Your task to perform on an android device: Search for hotels in Paris Image 0: 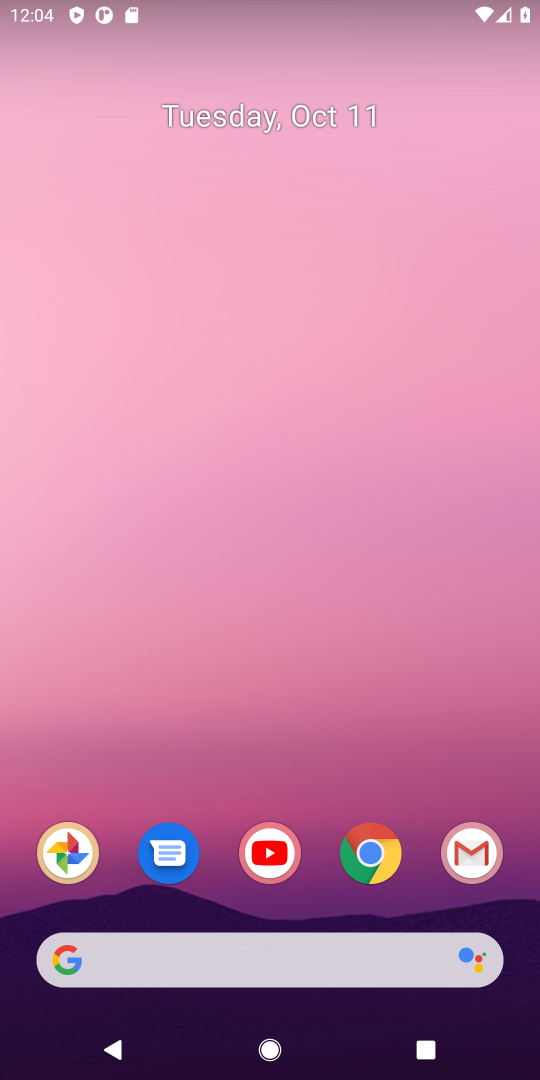
Step 0: drag from (343, 807) to (408, 45)
Your task to perform on an android device: Search for hotels in Paris Image 1: 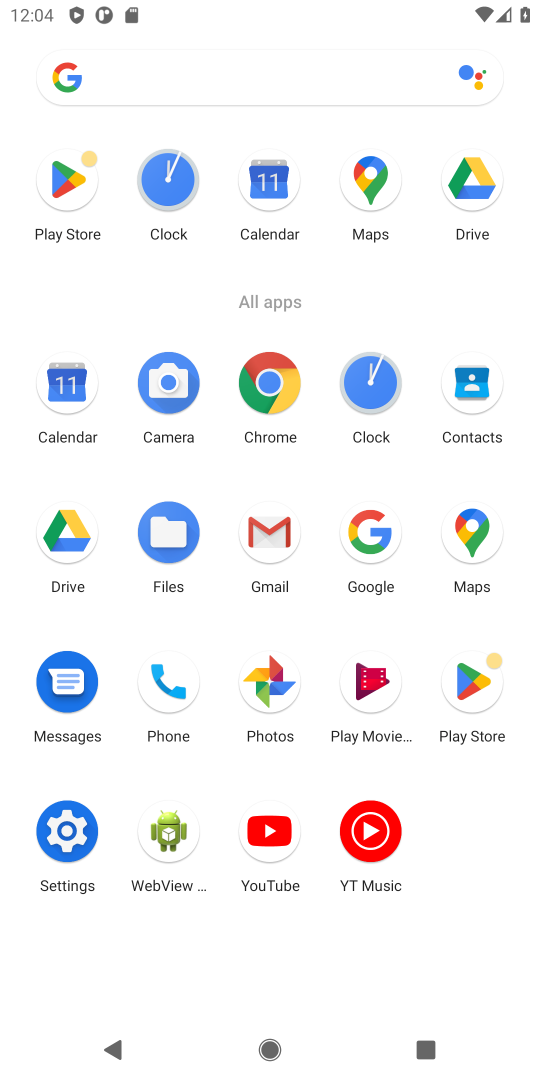
Step 1: click (272, 405)
Your task to perform on an android device: Search for hotels in Paris Image 2: 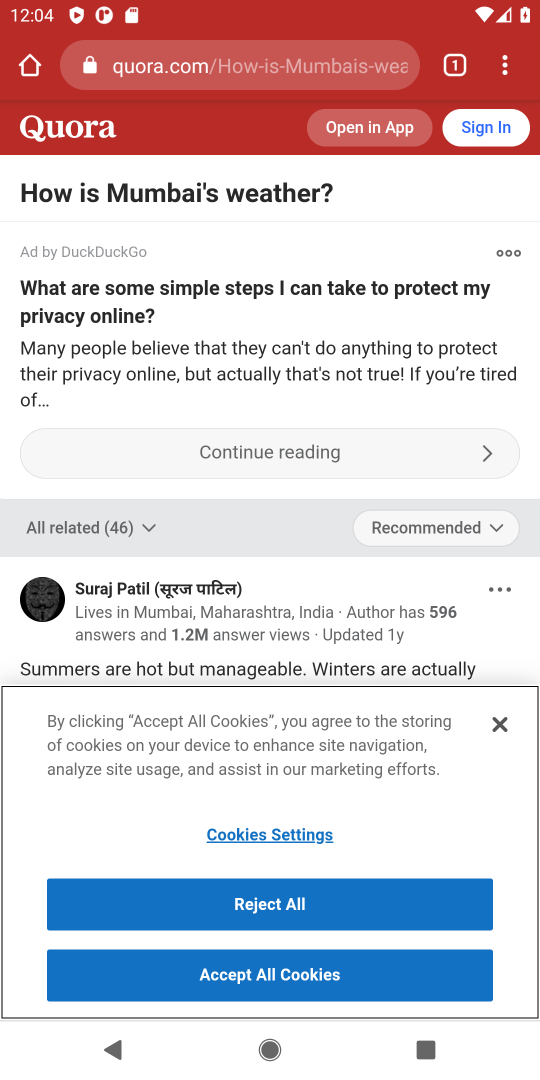
Step 2: click (235, 67)
Your task to perform on an android device: Search for hotels in Paris Image 3: 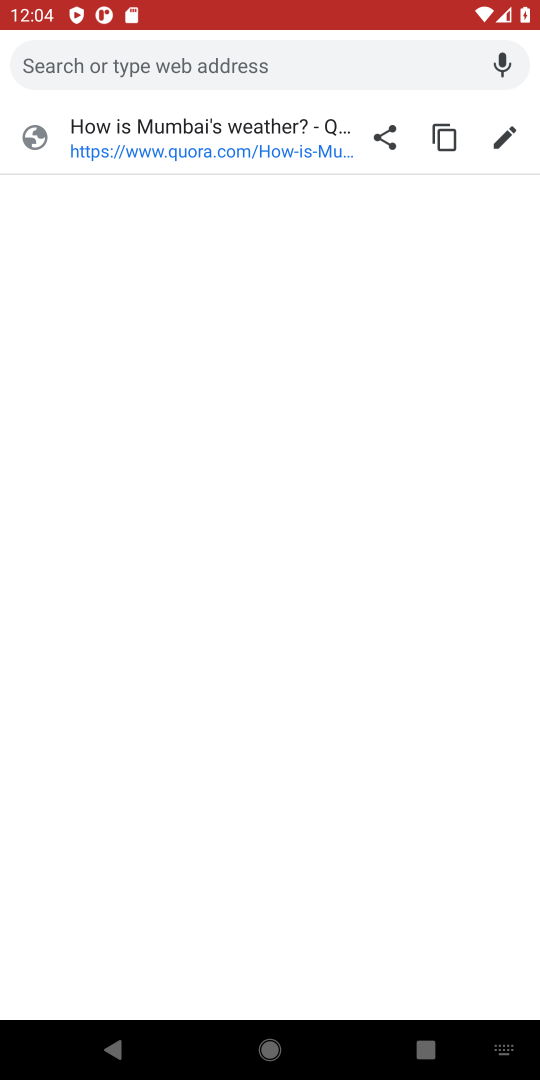
Step 3: type "hotels in Paris"
Your task to perform on an android device: Search for hotels in Paris Image 4: 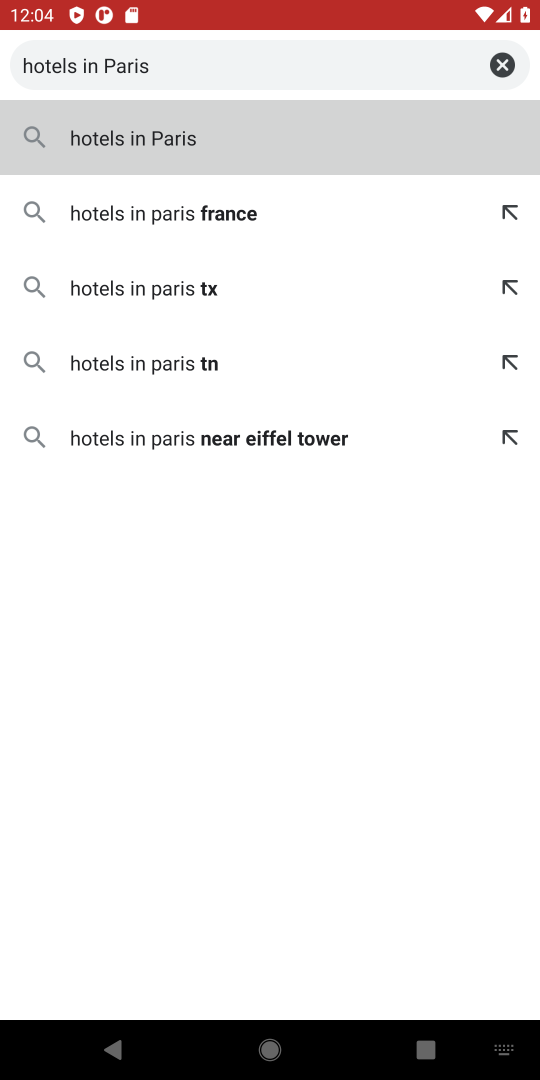
Step 4: type ""
Your task to perform on an android device: Search for hotels in Paris Image 5: 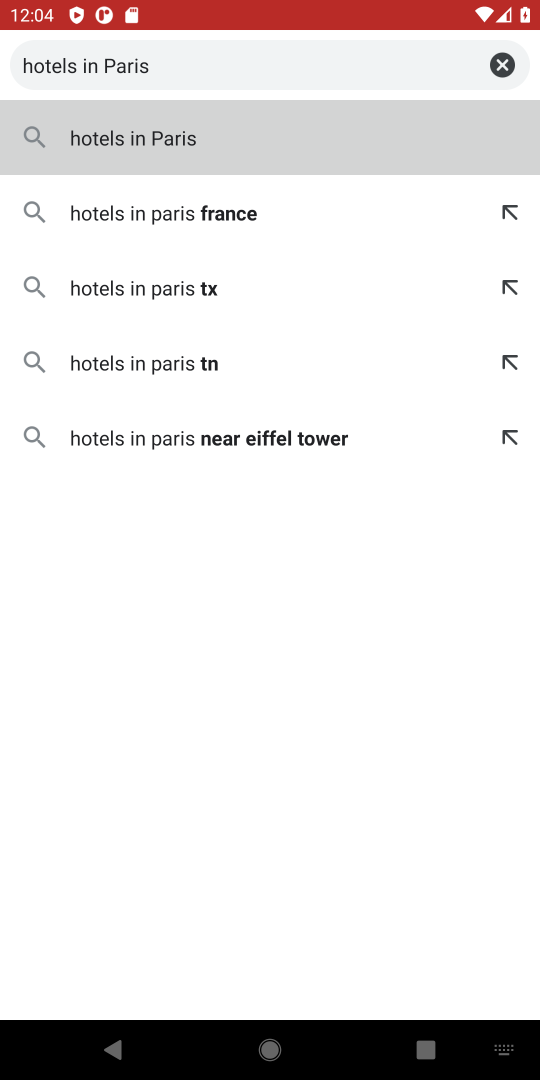
Step 5: click (281, 228)
Your task to perform on an android device: Search for hotels in Paris Image 6: 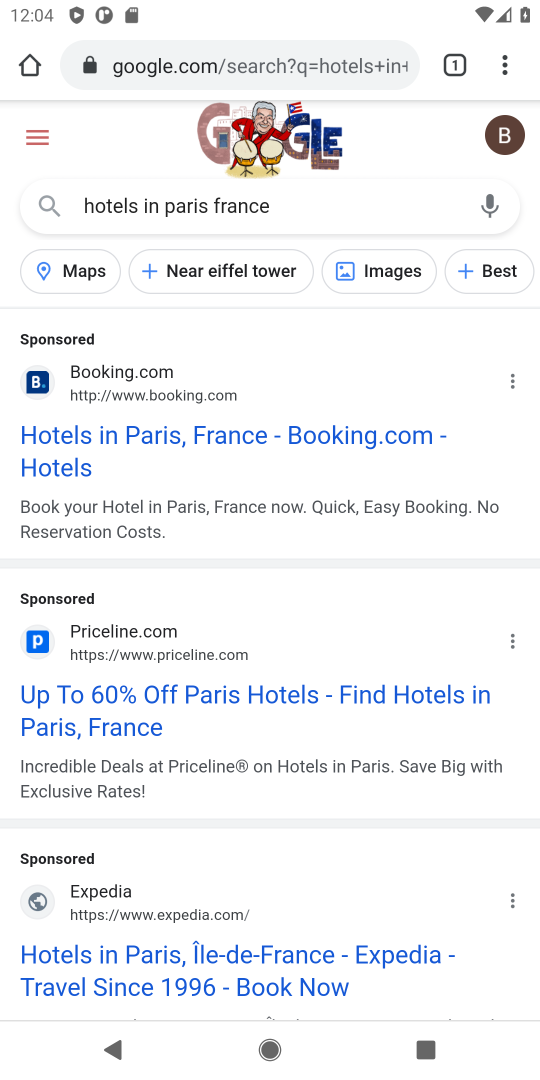
Step 6: click (342, 428)
Your task to perform on an android device: Search for hotels in Paris Image 7: 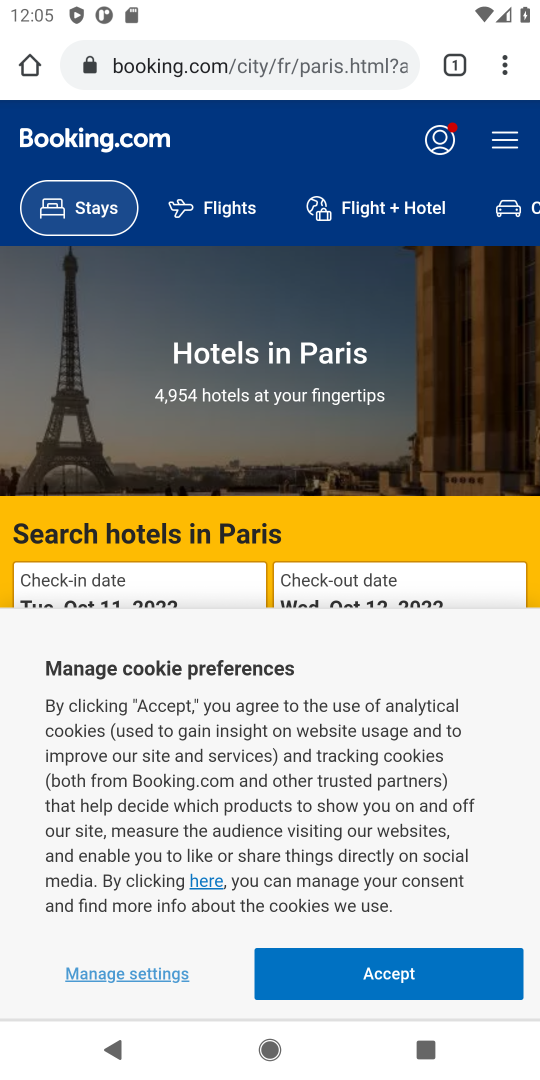
Step 7: click (303, 984)
Your task to perform on an android device: Search for hotels in Paris Image 8: 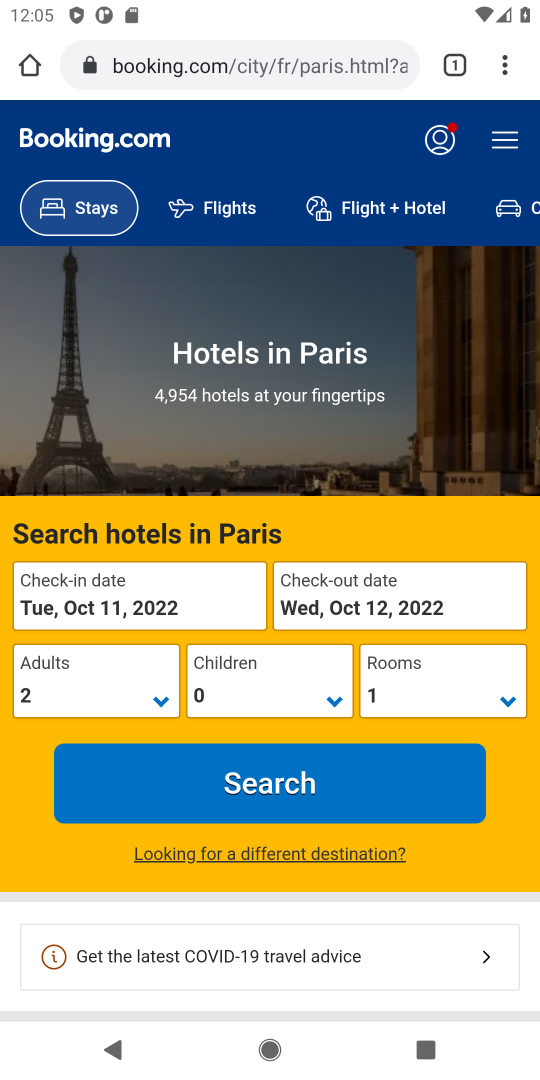
Step 8: drag from (170, 930) to (163, 424)
Your task to perform on an android device: Search for hotels in Paris Image 9: 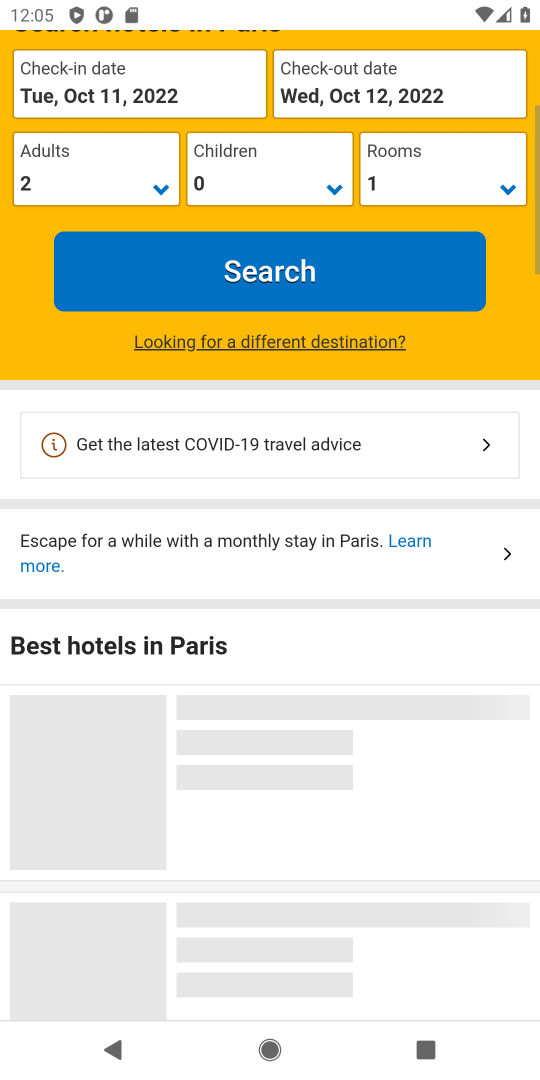
Step 9: drag from (259, 833) to (295, 363)
Your task to perform on an android device: Search for hotels in Paris Image 10: 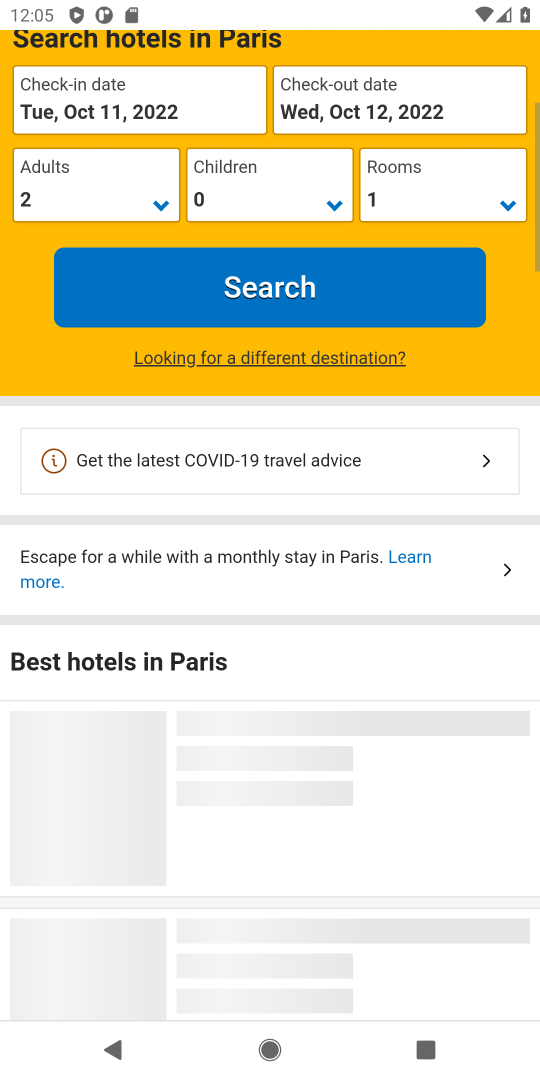
Step 10: drag from (376, 660) to (345, 258)
Your task to perform on an android device: Search for hotels in Paris Image 11: 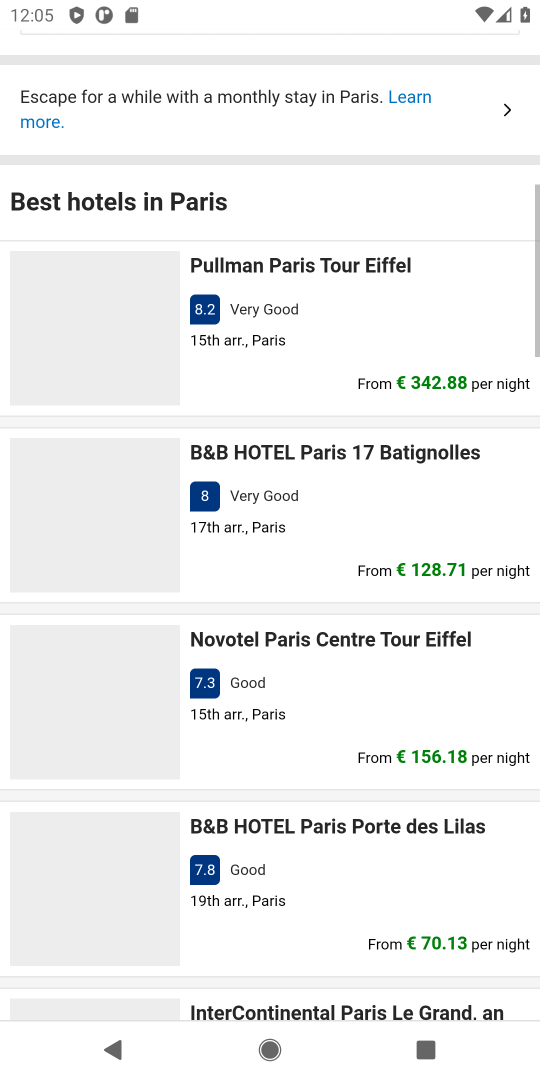
Step 11: drag from (280, 797) to (281, 157)
Your task to perform on an android device: Search for hotels in Paris Image 12: 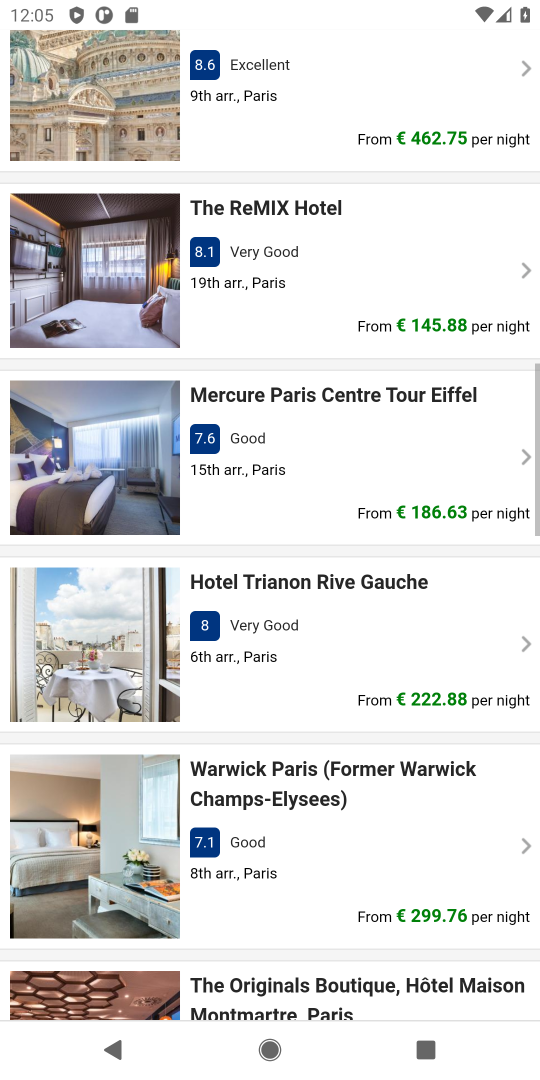
Step 12: drag from (267, 658) to (221, 226)
Your task to perform on an android device: Search for hotels in Paris Image 13: 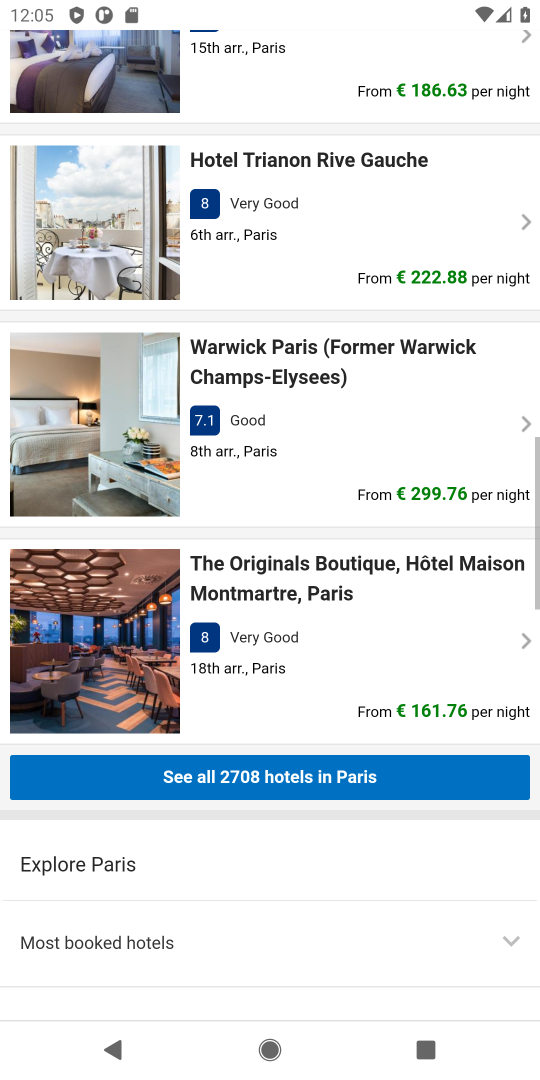
Step 13: drag from (204, 796) to (156, 153)
Your task to perform on an android device: Search for hotels in Paris Image 14: 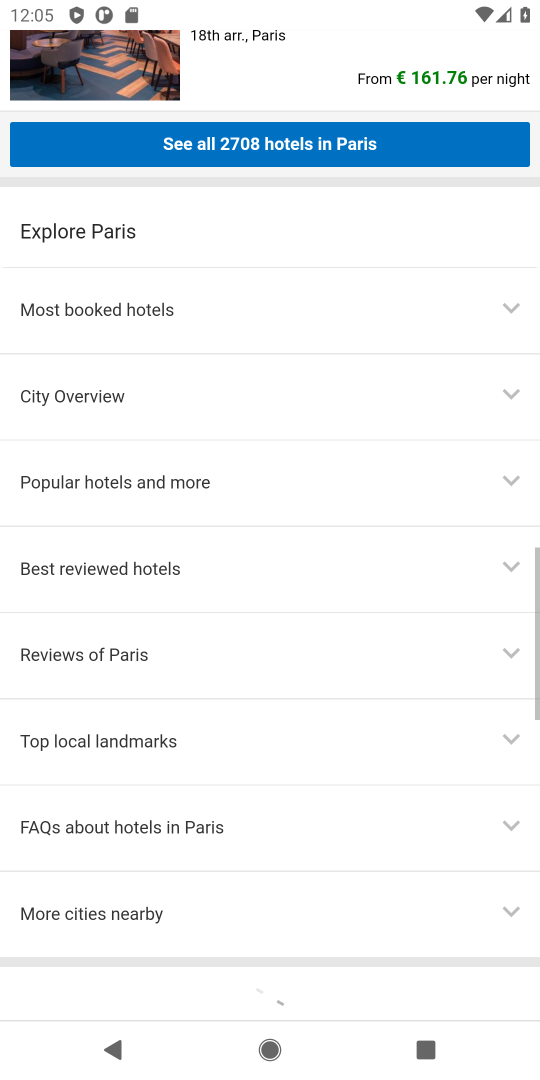
Step 14: drag from (102, 724) to (88, 196)
Your task to perform on an android device: Search for hotels in Paris Image 15: 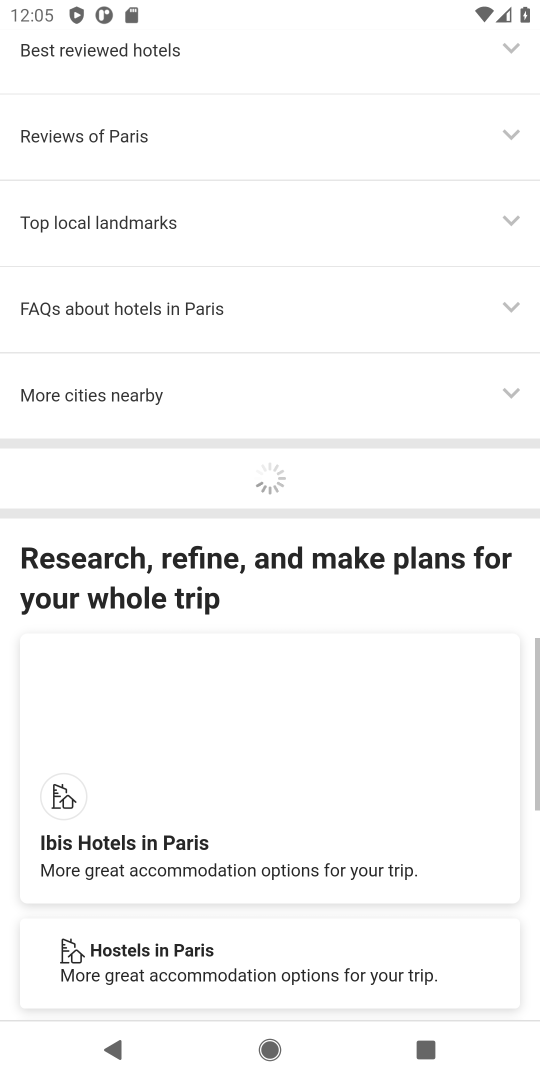
Step 15: drag from (200, 793) to (280, 166)
Your task to perform on an android device: Search for hotels in Paris Image 16: 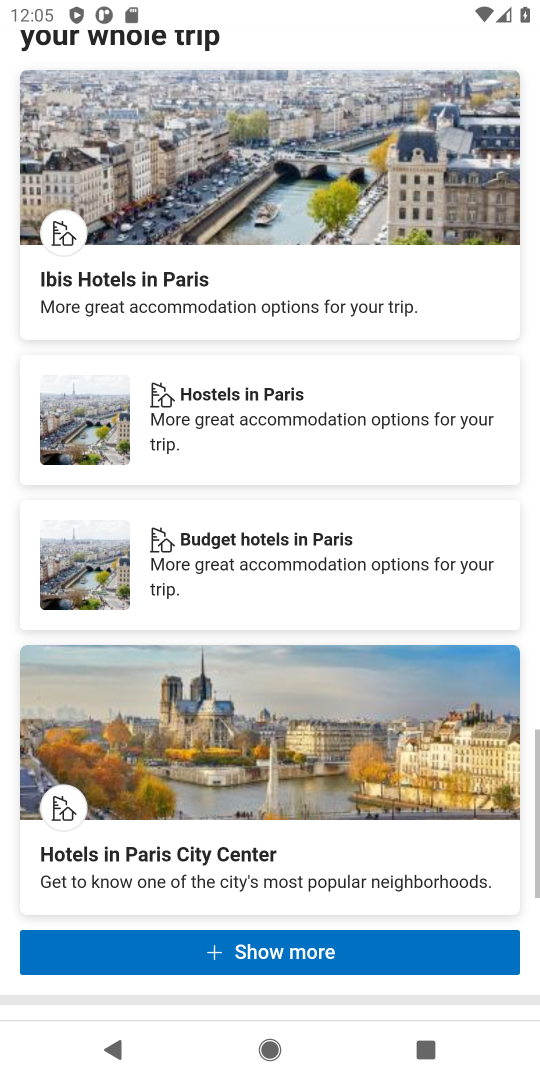
Step 16: drag from (315, 769) to (275, 62)
Your task to perform on an android device: Search for hotels in Paris Image 17: 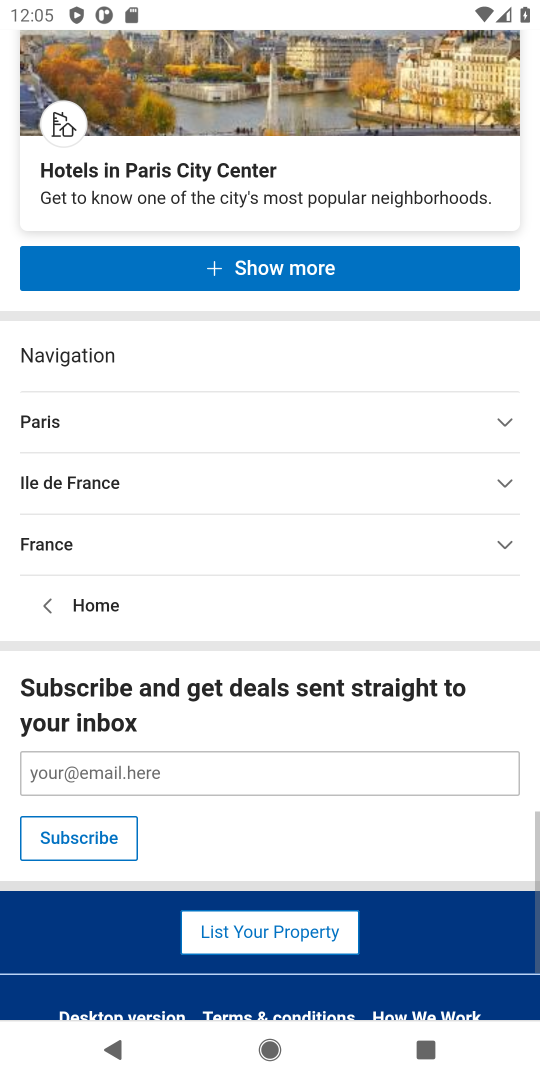
Step 17: drag from (317, 742) to (328, 174)
Your task to perform on an android device: Search for hotels in Paris Image 18: 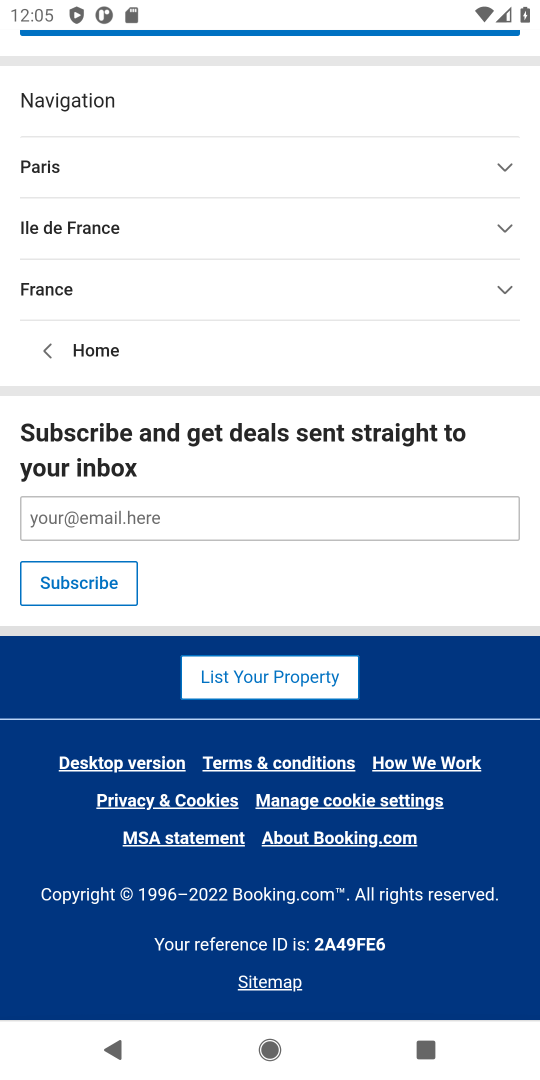
Step 18: drag from (369, 731) to (334, 202)
Your task to perform on an android device: Search for hotels in Paris Image 19: 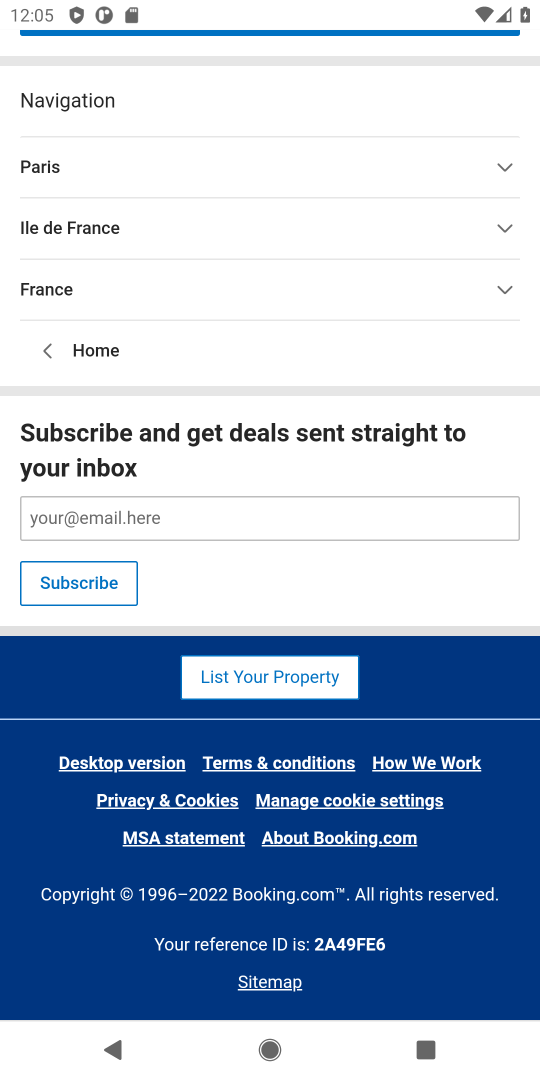
Step 19: drag from (319, 794) to (285, 30)
Your task to perform on an android device: Search for hotels in Paris Image 20: 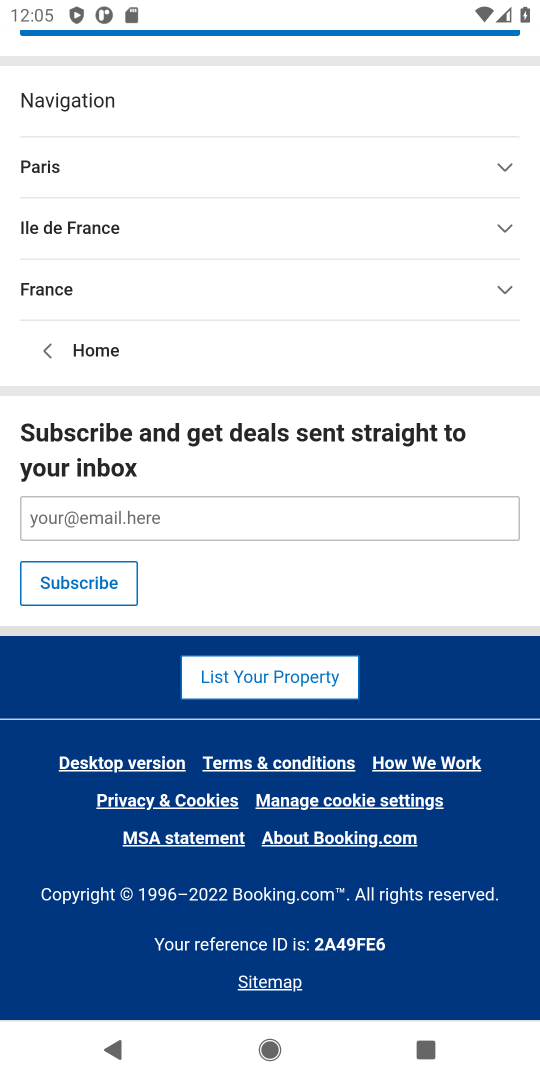
Step 20: drag from (244, 153) to (223, 905)
Your task to perform on an android device: Search for hotels in Paris Image 21: 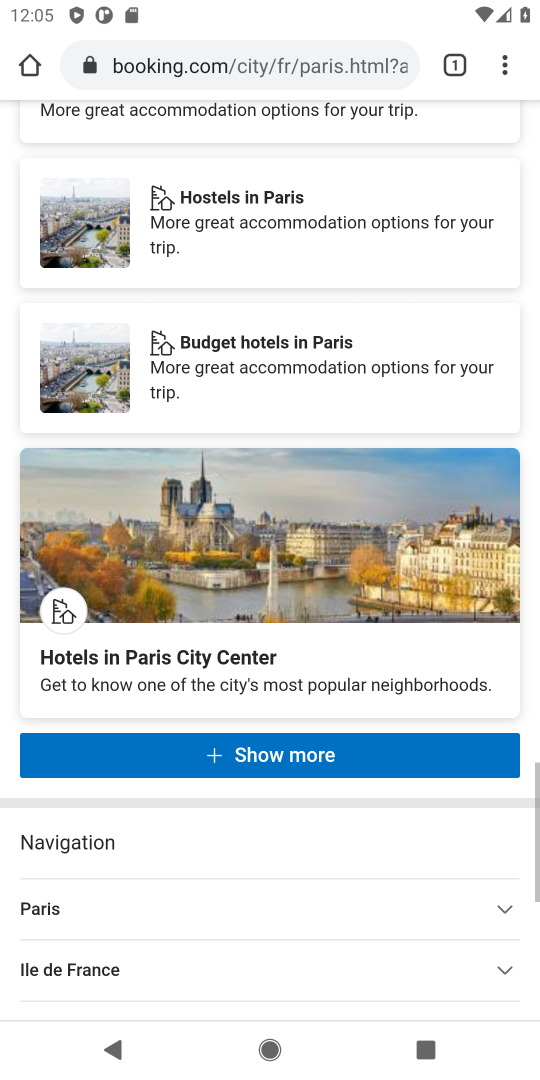
Step 21: drag from (274, 322) to (305, 733)
Your task to perform on an android device: Search for hotels in Paris Image 22: 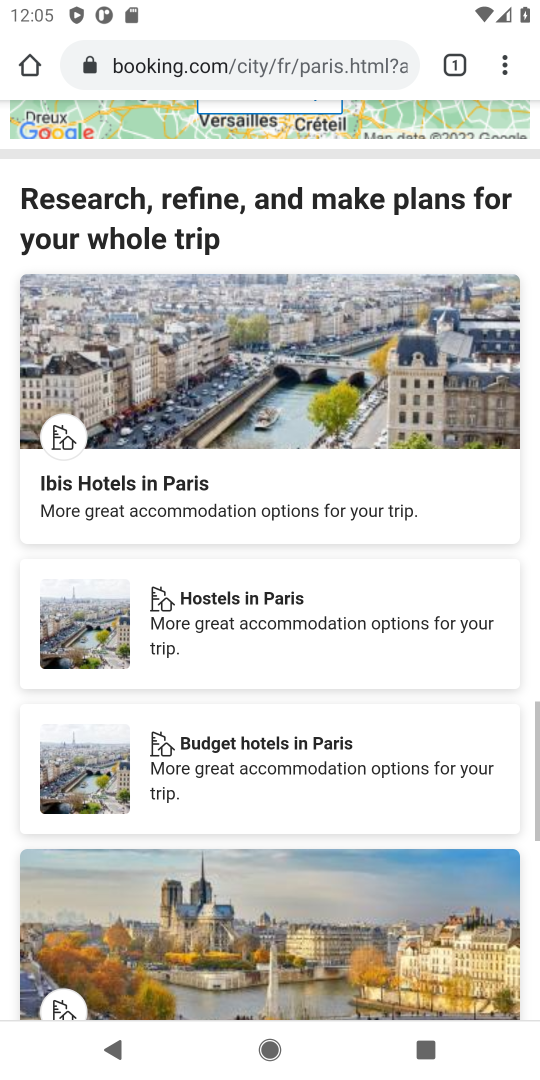
Step 22: drag from (313, 503) to (302, 760)
Your task to perform on an android device: Search for hotels in Paris Image 23: 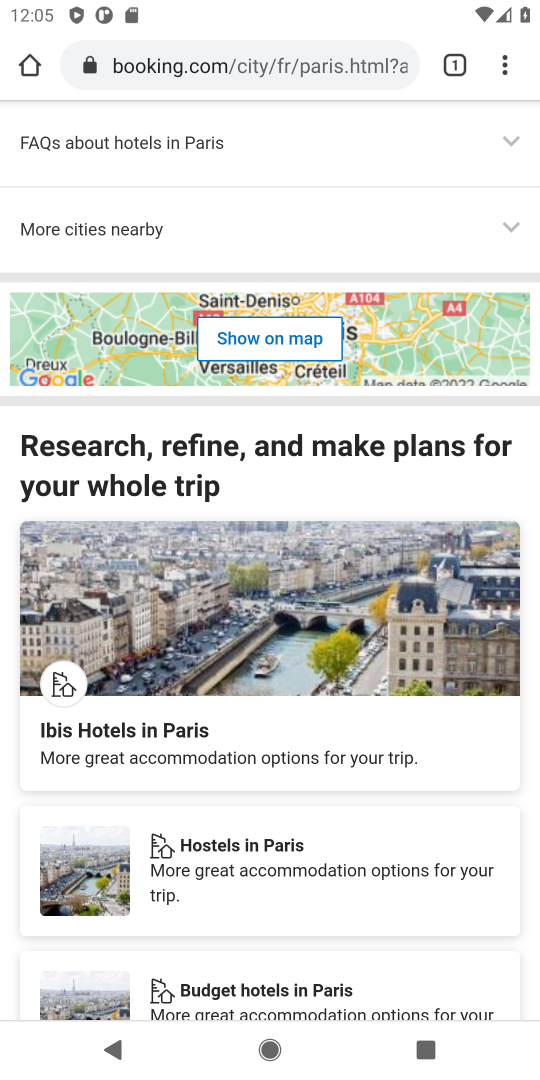
Step 23: drag from (411, 928) to (394, 223)
Your task to perform on an android device: Search for hotels in Paris Image 24: 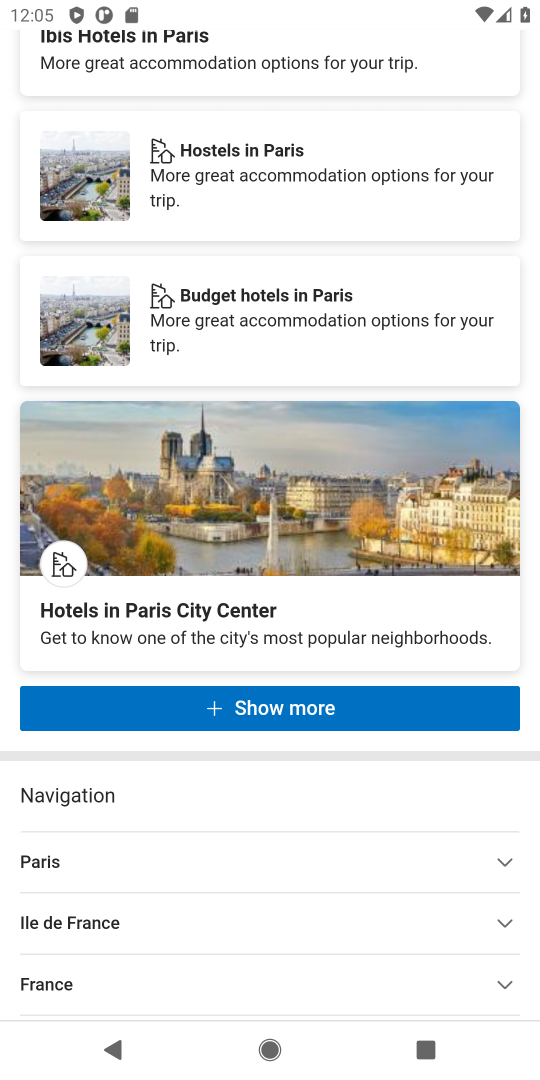
Step 24: drag from (402, 840) to (404, 1061)
Your task to perform on an android device: Search for hotels in Paris Image 25: 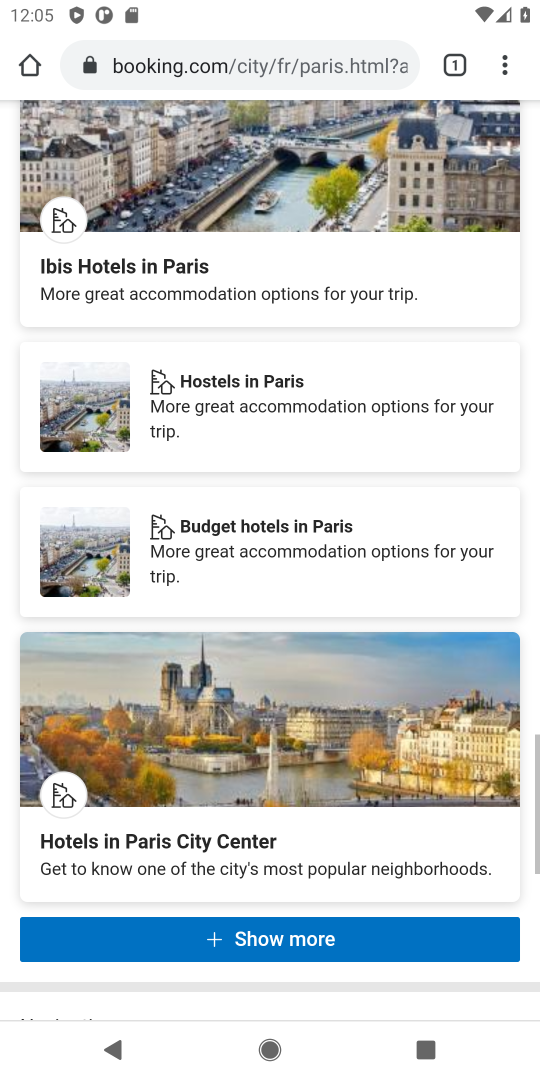
Step 25: drag from (300, 286) to (361, 918)
Your task to perform on an android device: Search for hotels in Paris Image 26: 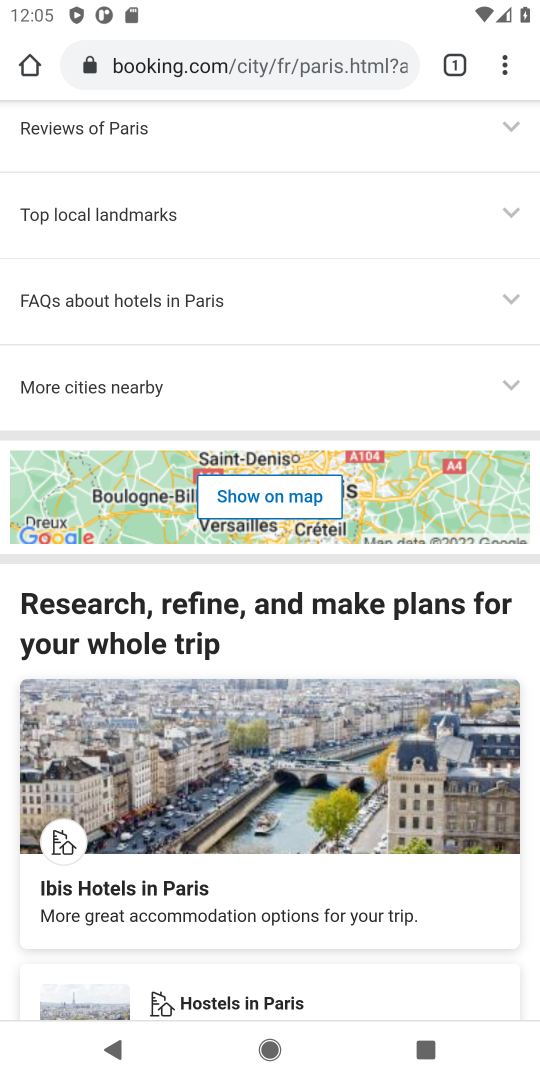
Step 26: drag from (118, 243) to (113, 821)
Your task to perform on an android device: Search for hotels in Paris Image 27: 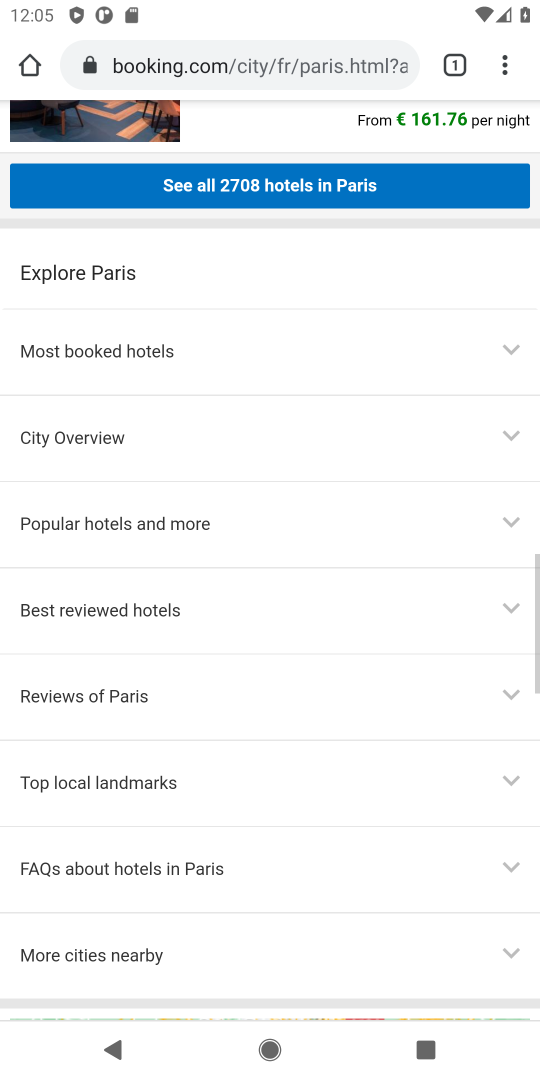
Step 27: drag from (229, 442) to (267, 901)
Your task to perform on an android device: Search for hotels in Paris Image 28: 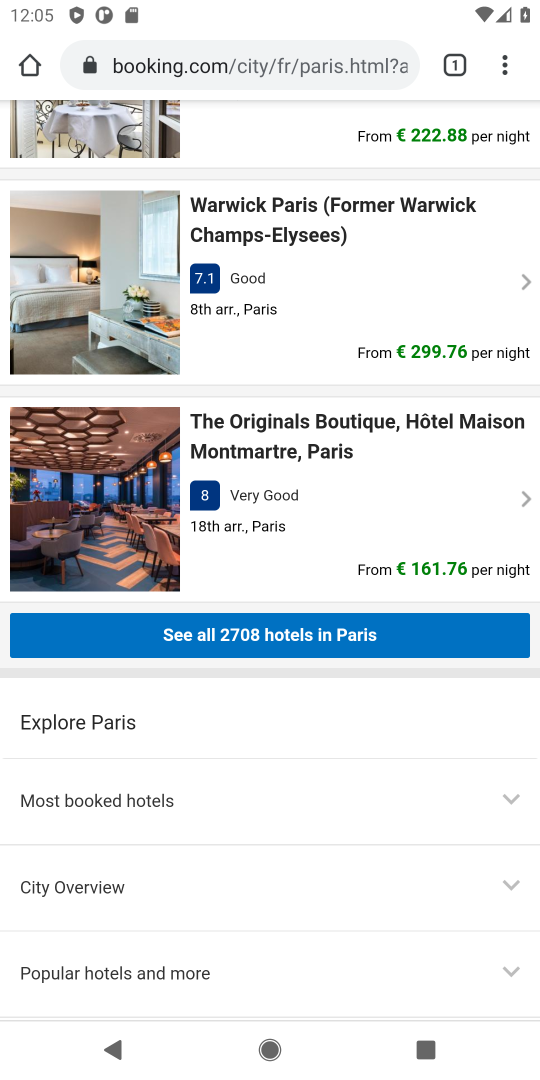
Step 28: drag from (235, 340) to (255, 892)
Your task to perform on an android device: Search for hotels in Paris Image 29: 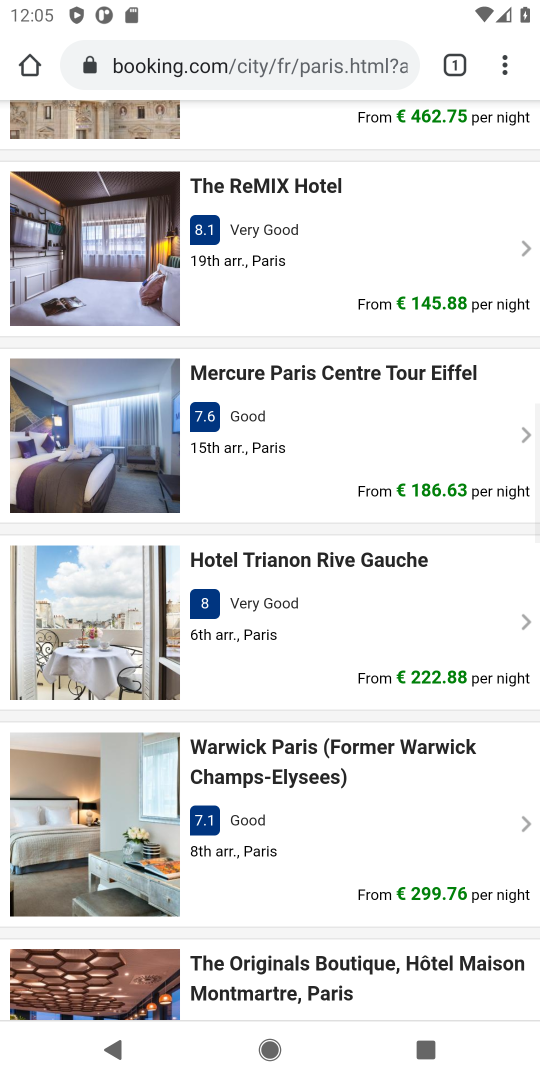
Step 29: drag from (299, 341) to (295, 946)
Your task to perform on an android device: Search for hotels in Paris Image 30: 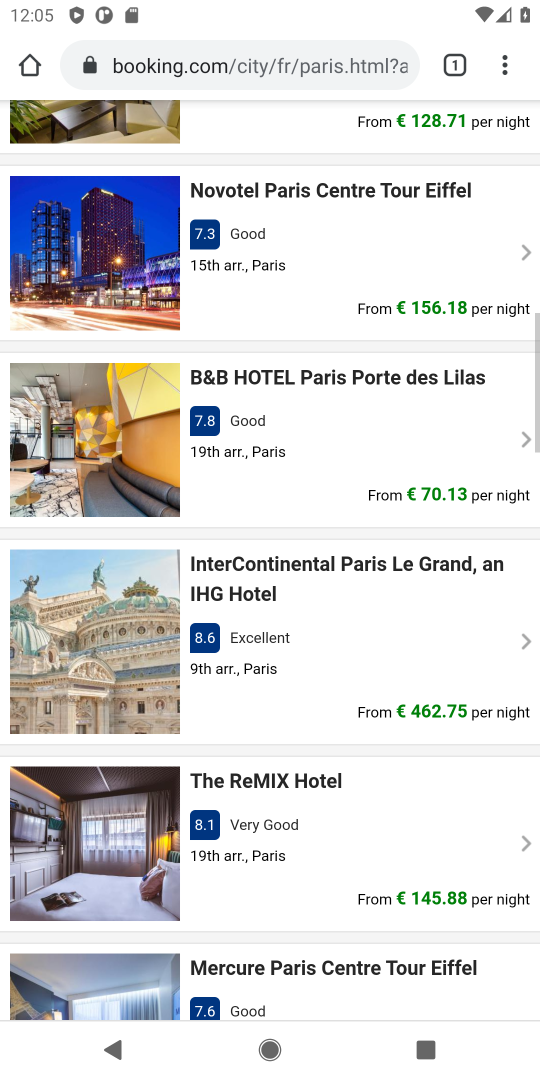
Step 30: drag from (263, 682) to (250, 756)
Your task to perform on an android device: Search for hotels in Paris Image 31: 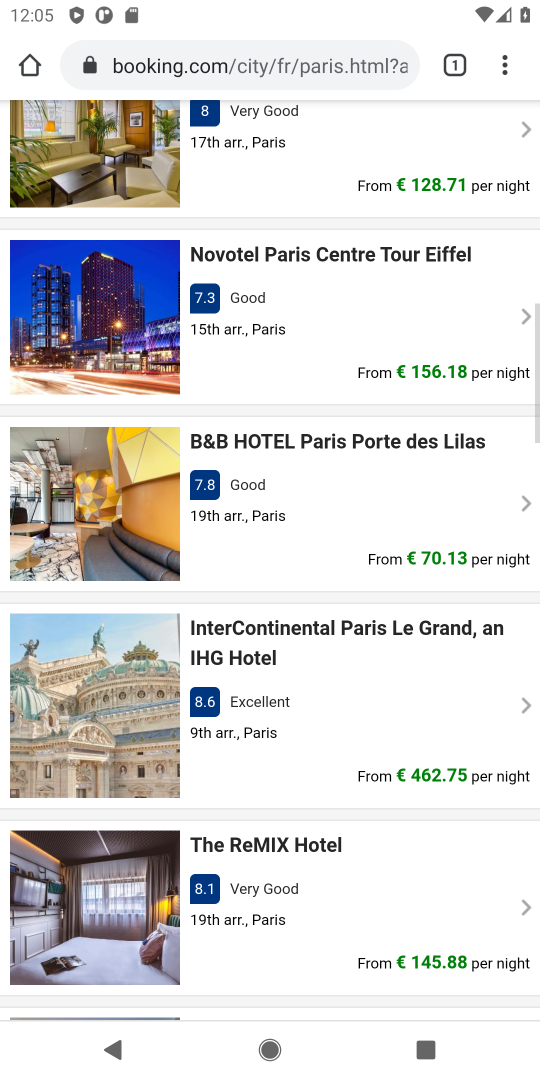
Step 31: press back button
Your task to perform on an android device: Search for hotels in Paris Image 32: 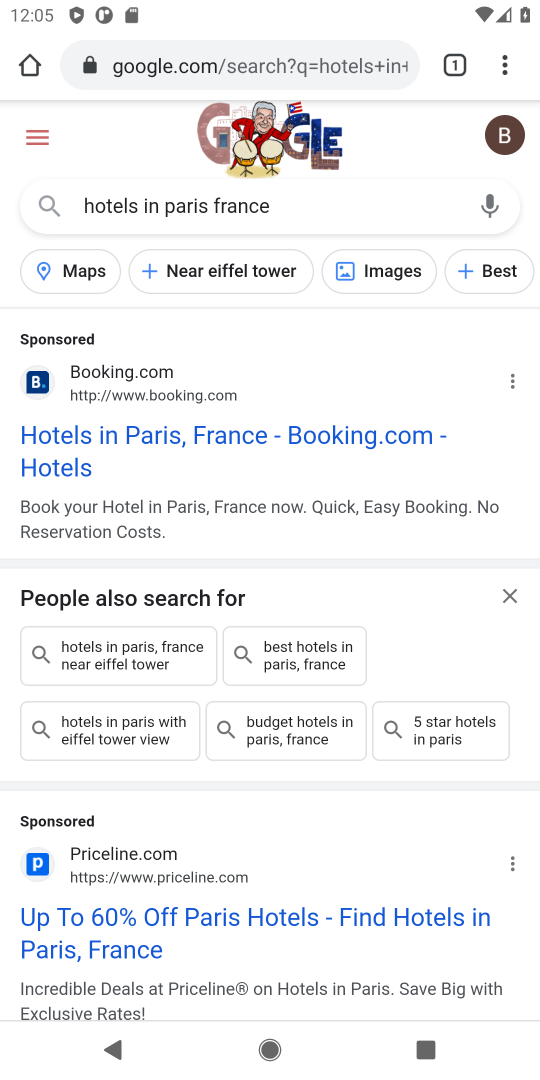
Step 32: click (151, 893)
Your task to perform on an android device: Search for hotels in Paris Image 33: 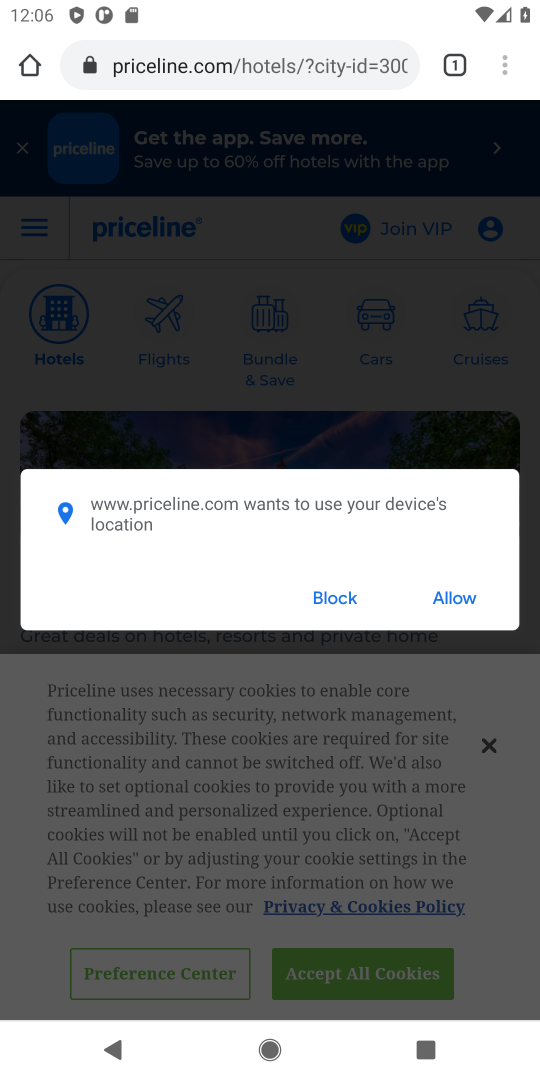
Step 33: drag from (153, 886) to (169, 790)
Your task to perform on an android device: Search for hotels in Paris Image 34: 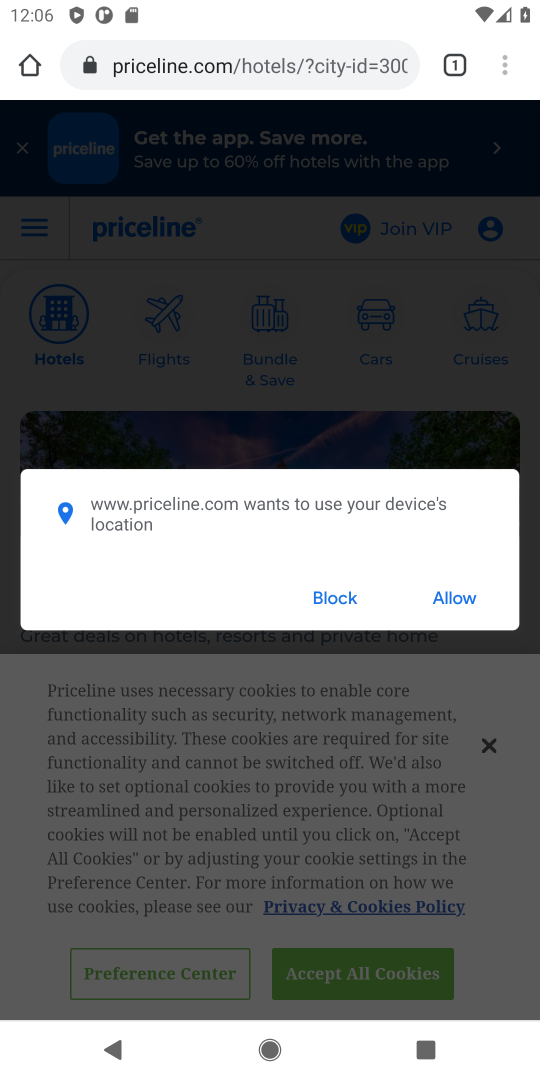
Step 34: click (336, 608)
Your task to perform on an android device: Search for hotels in Paris Image 35: 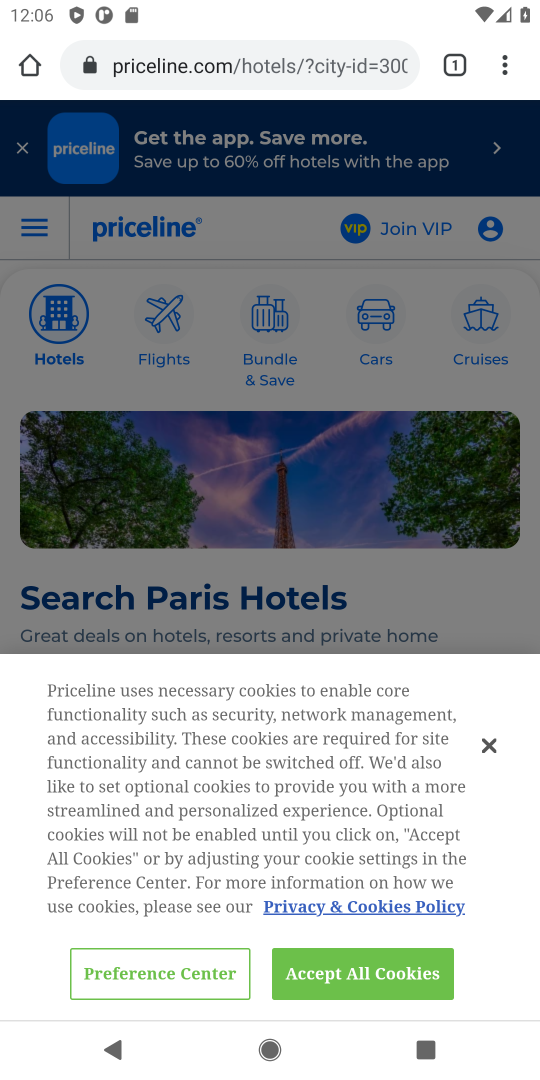
Step 35: click (406, 961)
Your task to perform on an android device: Search for hotels in Paris Image 36: 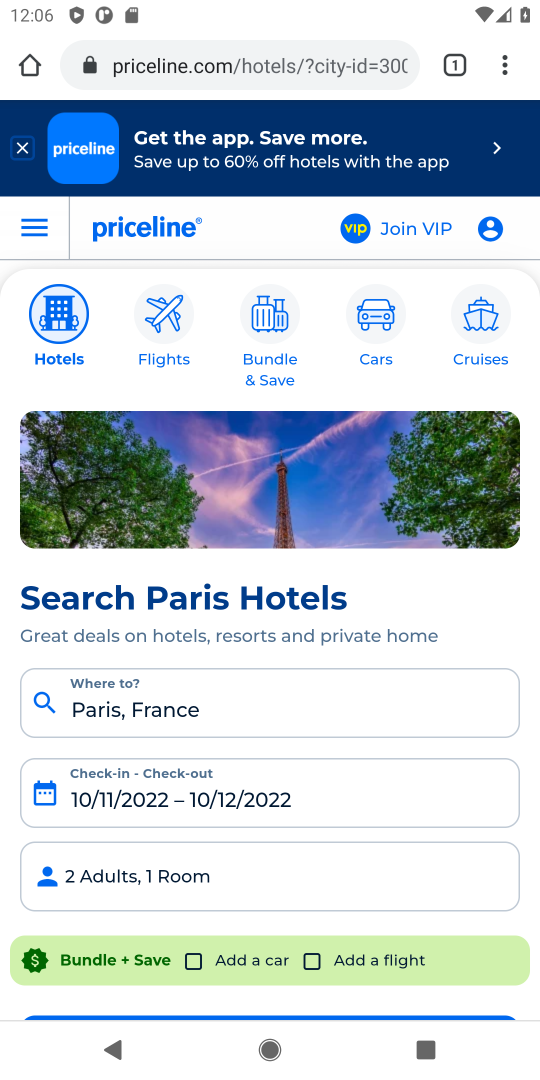
Step 36: drag from (399, 921) to (374, 83)
Your task to perform on an android device: Search for hotels in Paris Image 37: 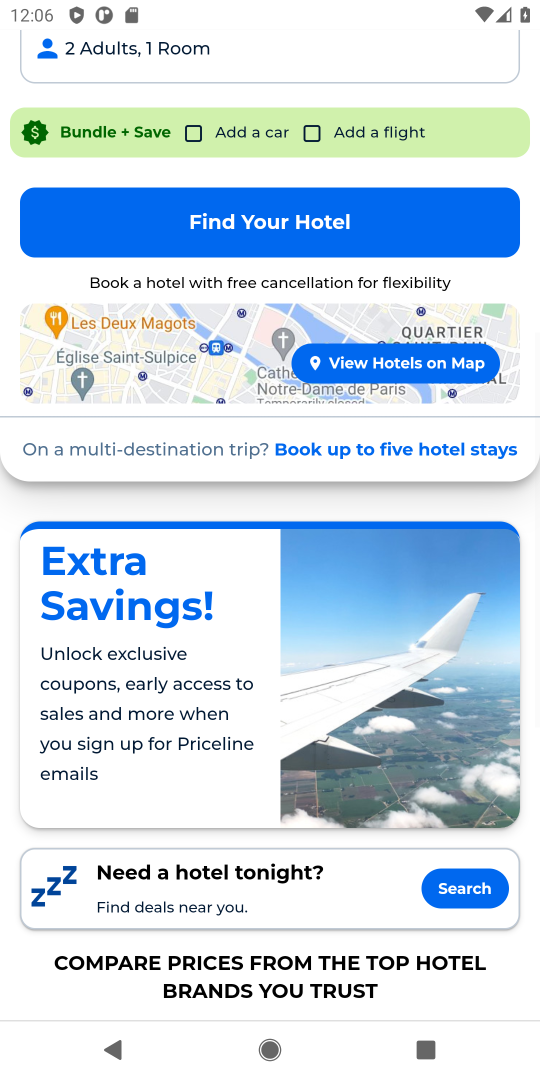
Step 37: drag from (390, 881) to (347, 150)
Your task to perform on an android device: Search for hotels in Paris Image 38: 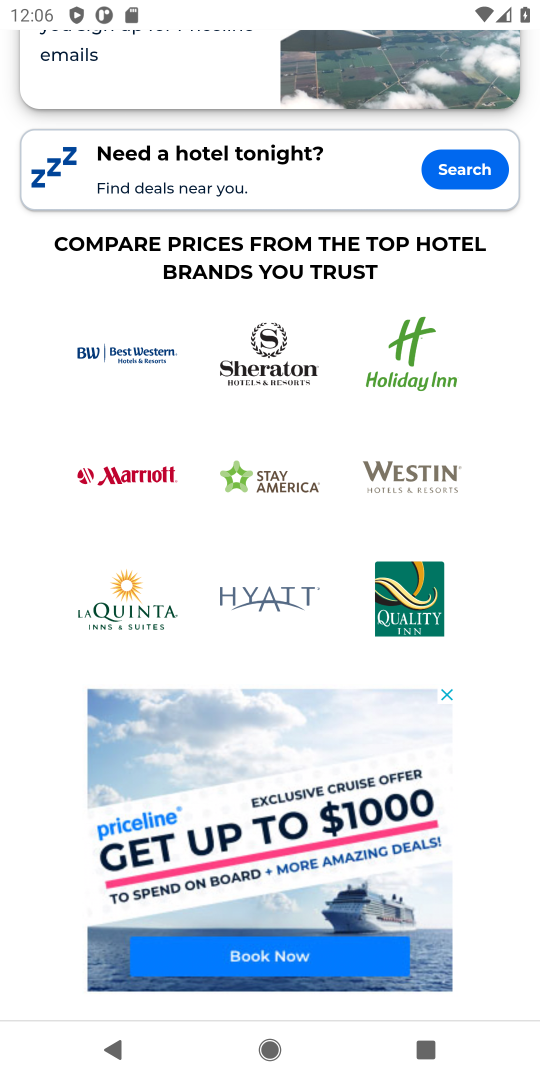
Step 38: drag from (346, 907) to (363, 178)
Your task to perform on an android device: Search for hotels in Paris Image 39: 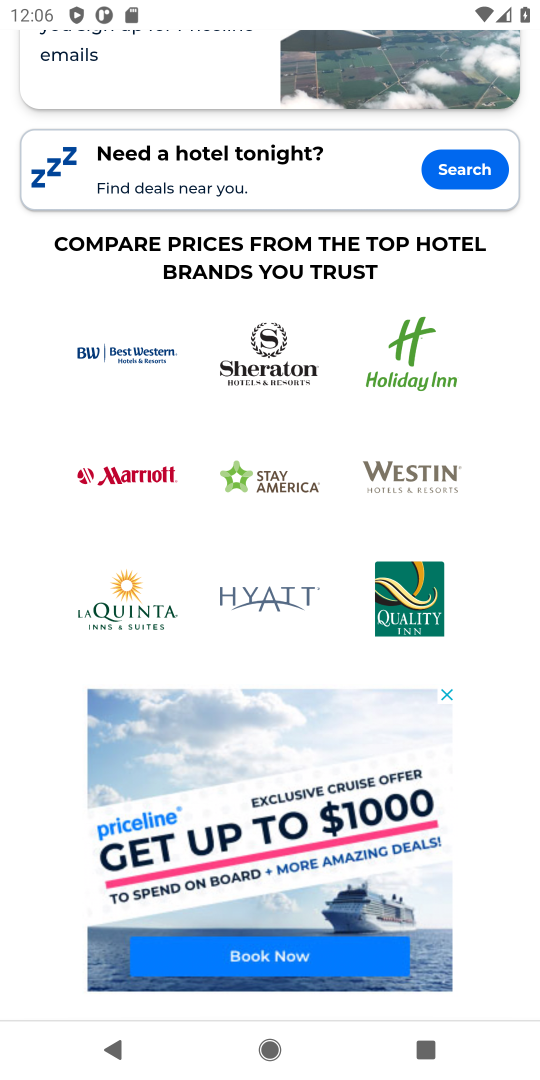
Step 39: drag from (358, 314) to (272, 937)
Your task to perform on an android device: Search for hotels in Paris Image 40: 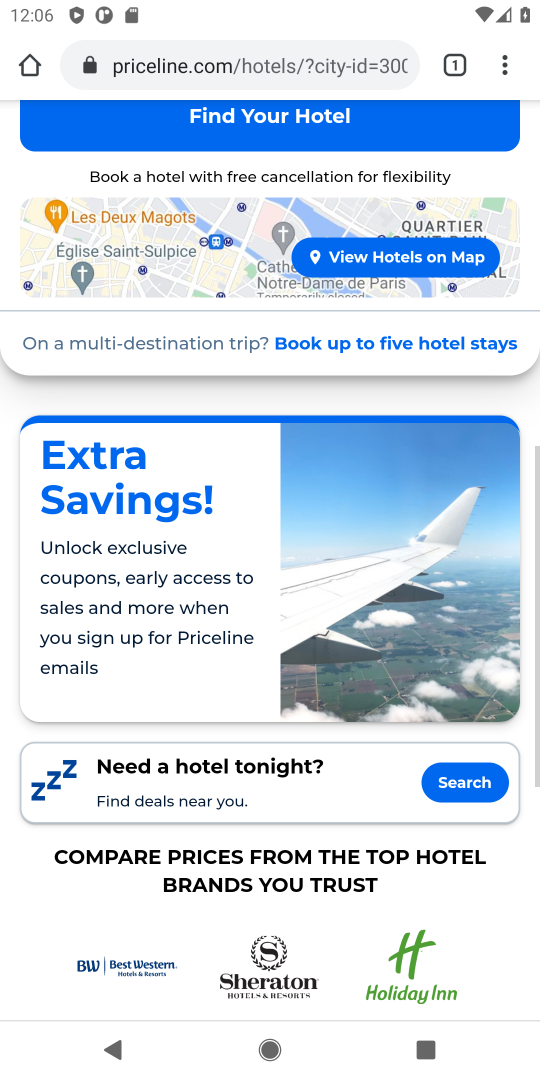
Step 40: drag from (202, 240) to (221, 882)
Your task to perform on an android device: Search for hotels in Paris Image 41: 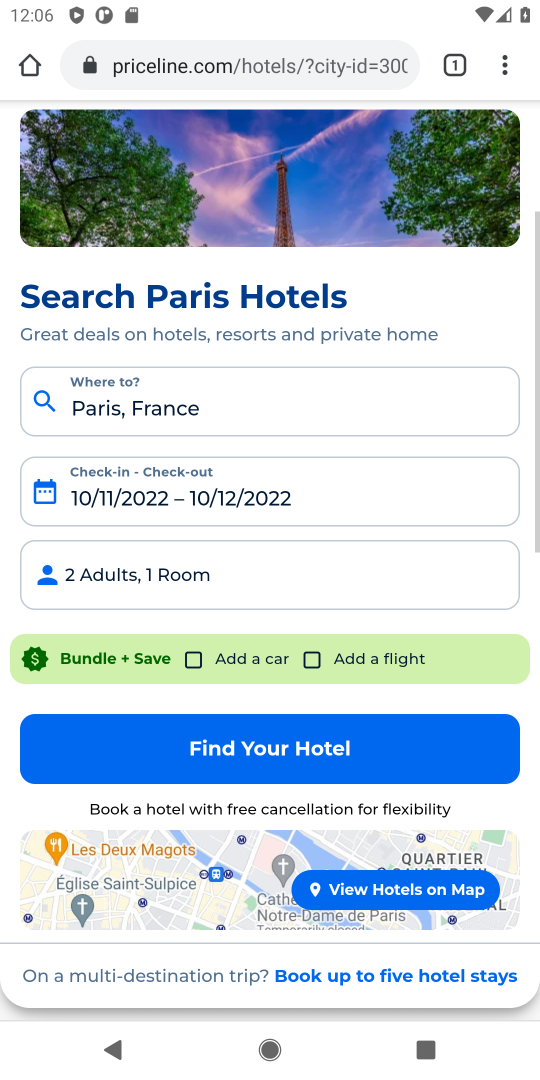
Step 41: drag from (254, 245) to (249, 891)
Your task to perform on an android device: Search for hotels in Paris Image 42: 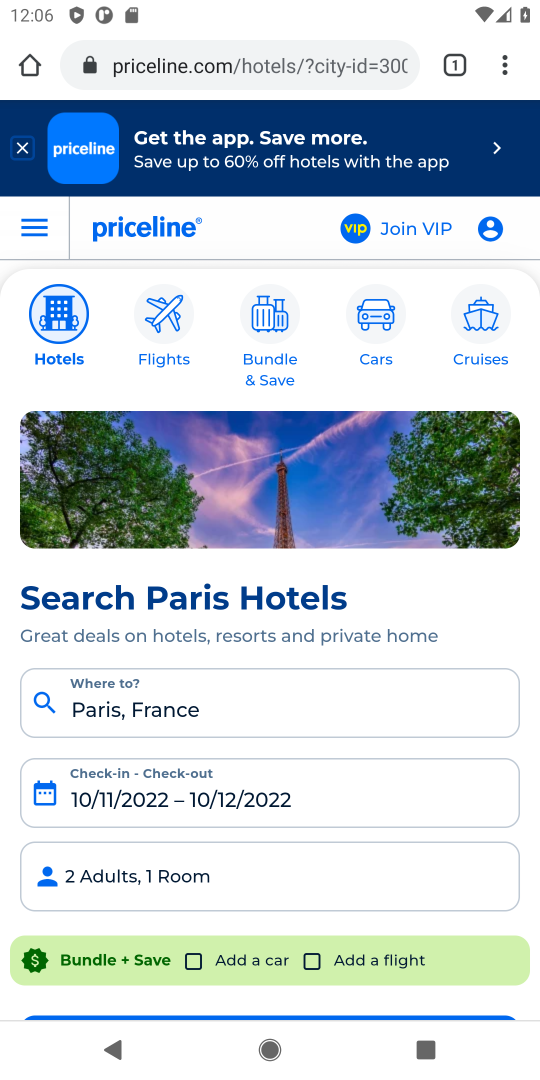
Step 42: click (180, 343)
Your task to perform on an android device: Search for hotels in Paris Image 43: 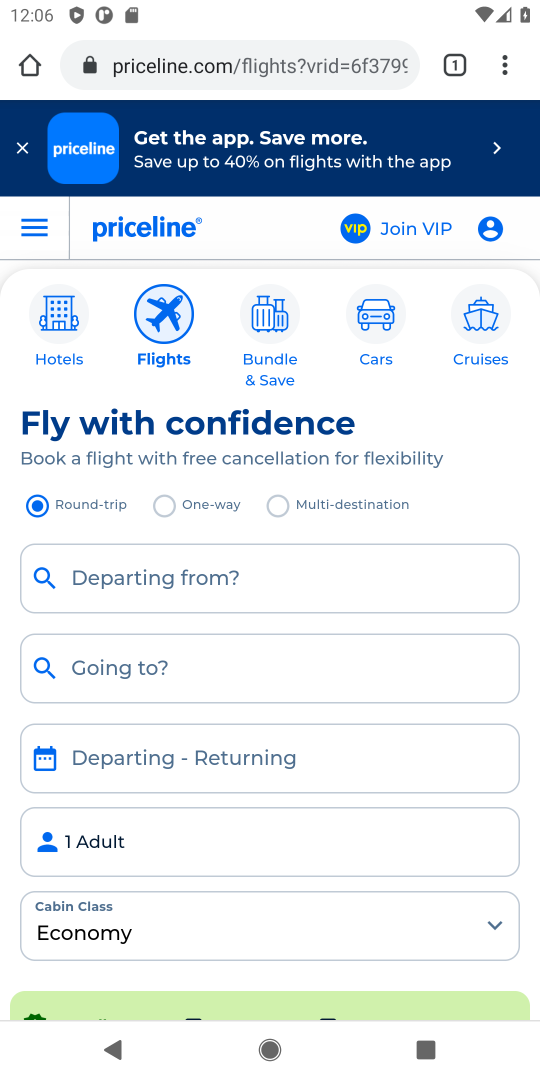
Step 43: task complete